Your task to perform on an android device: Open Google Chrome Image 0: 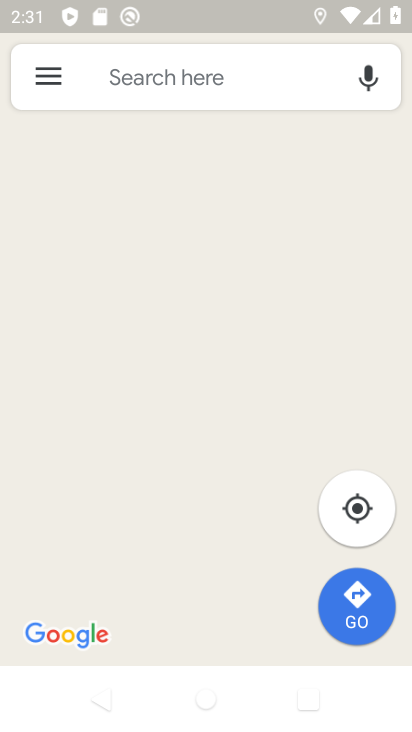
Step 0: press home button
Your task to perform on an android device: Open Google Chrome Image 1: 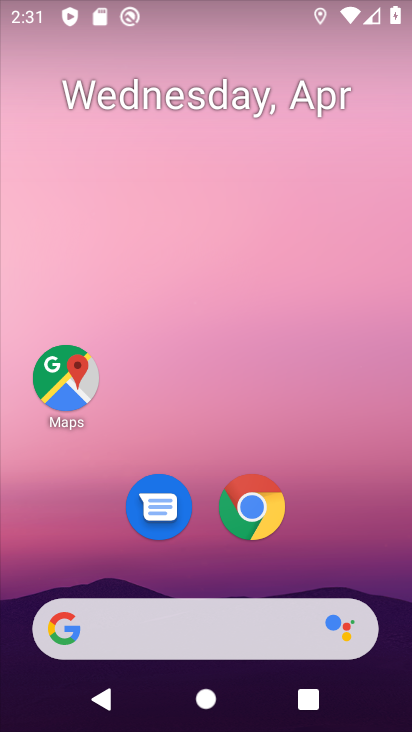
Step 1: click (262, 494)
Your task to perform on an android device: Open Google Chrome Image 2: 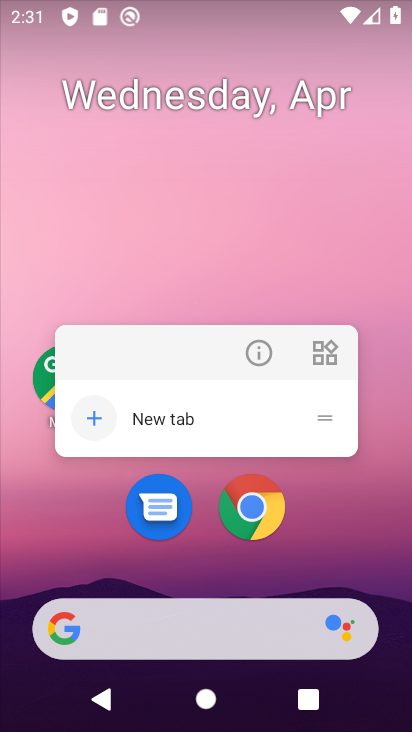
Step 2: click (259, 359)
Your task to perform on an android device: Open Google Chrome Image 3: 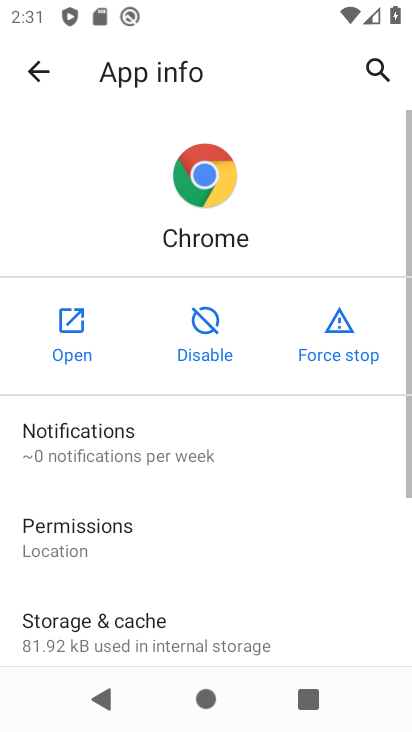
Step 3: click (79, 321)
Your task to perform on an android device: Open Google Chrome Image 4: 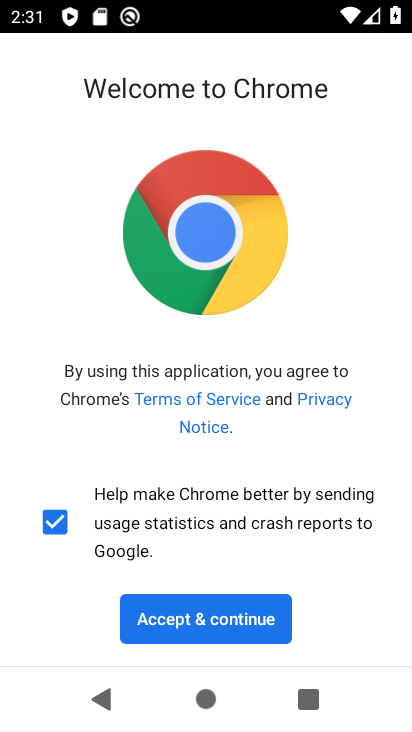
Step 4: click (235, 624)
Your task to perform on an android device: Open Google Chrome Image 5: 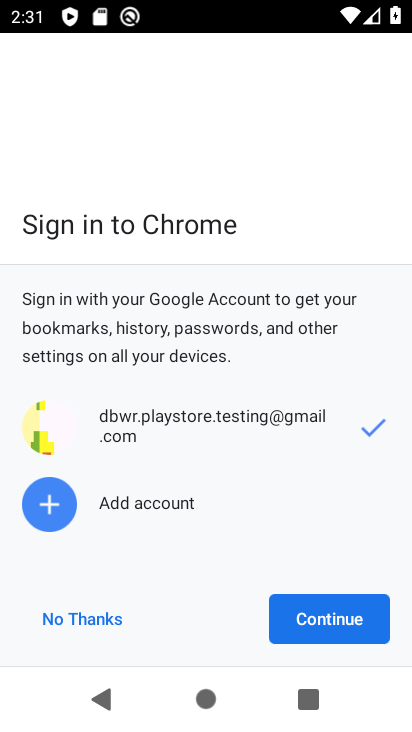
Step 5: click (338, 619)
Your task to perform on an android device: Open Google Chrome Image 6: 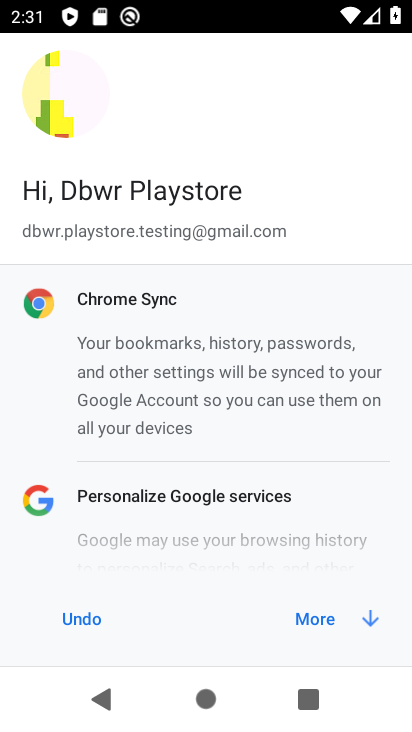
Step 6: click (338, 619)
Your task to perform on an android device: Open Google Chrome Image 7: 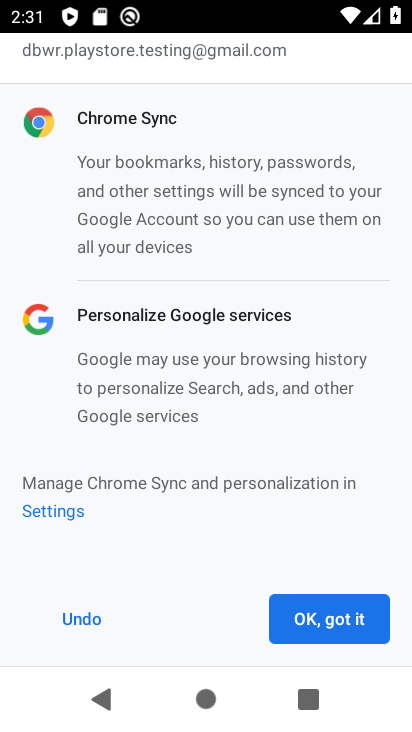
Step 7: click (338, 619)
Your task to perform on an android device: Open Google Chrome Image 8: 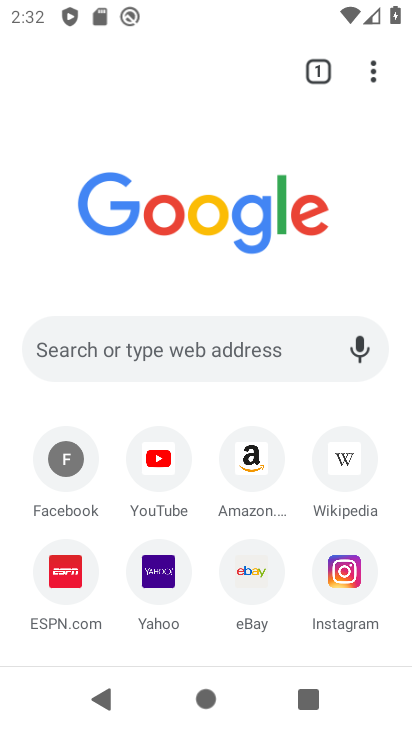
Step 8: task complete